Your task to perform on an android device: Go to battery settings Image 0: 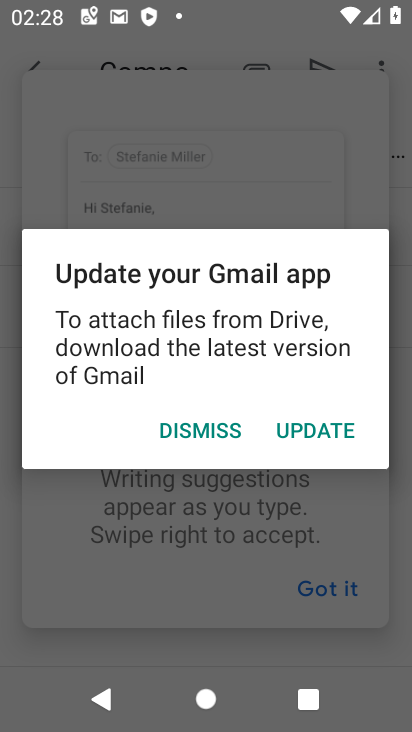
Step 0: press home button
Your task to perform on an android device: Go to battery settings Image 1: 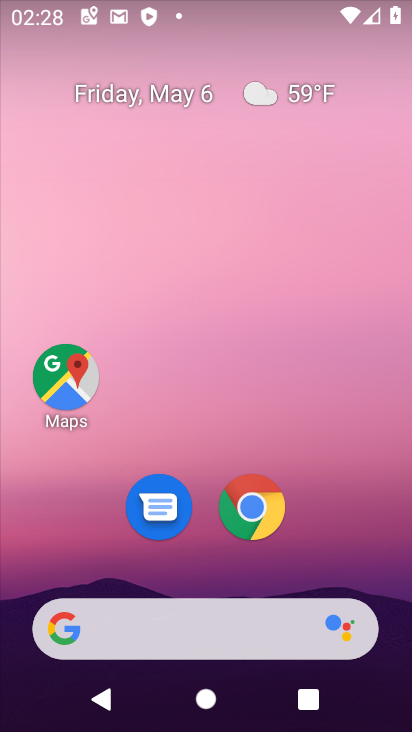
Step 1: drag from (297, 545) to (299, 119)
Your task to perform on an android device: Go to battery settings Image 2: 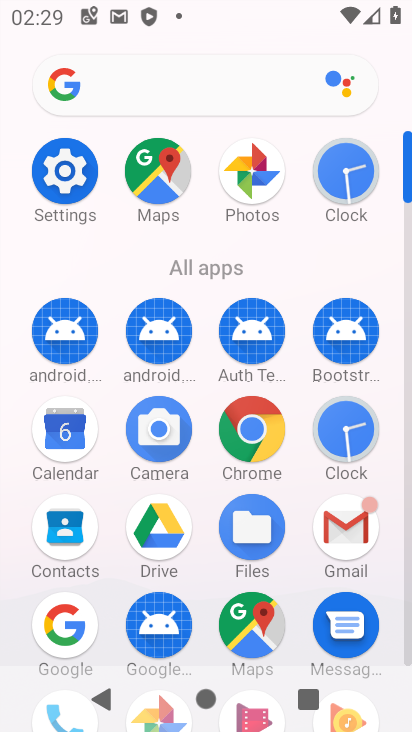
Step 2: drag from (285, 612) to (332, 317)
Your task to perform on an android device: Go to battery settings Image 3: 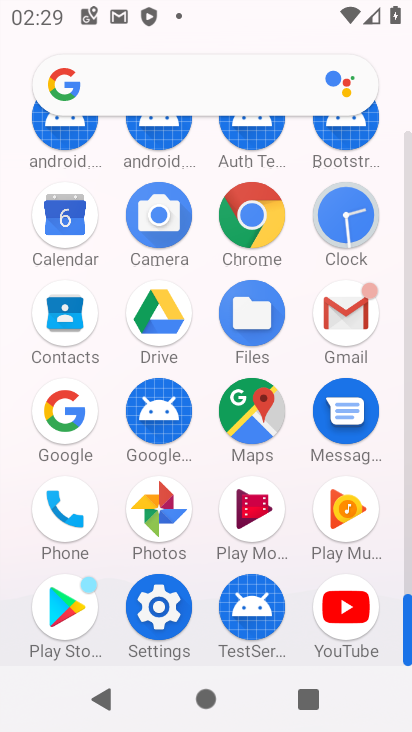
Step 3: click (168, 616)
Your task to perform on an android device: Go to battery settings Image 4: 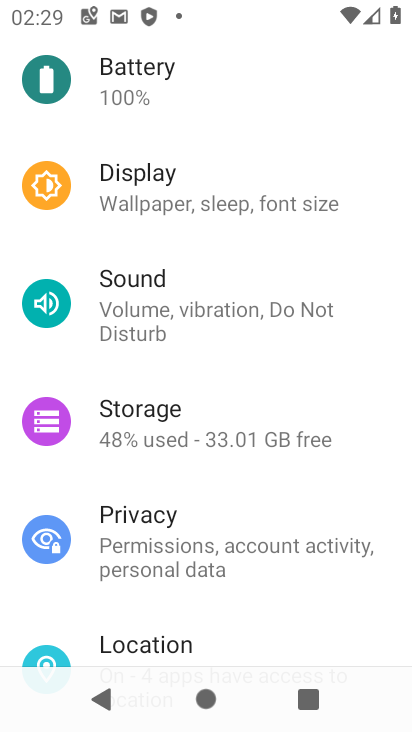
Step 4: click (178, 91)
Your task to perform on an android device: Go to battery settings Image 5: 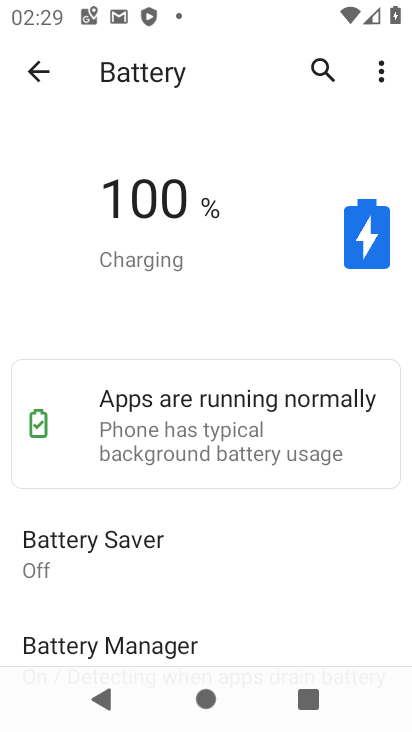
Step 5: task complete